Your task to perform on an android device: turn on javascript in the chrome app Image 0: 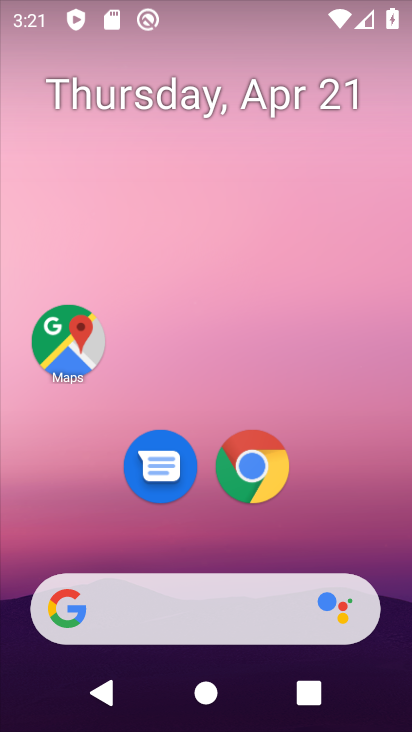
Step 0: click (261, 464)
Your task to perform on an android device: turn on javascript in the chrome app Image 1: 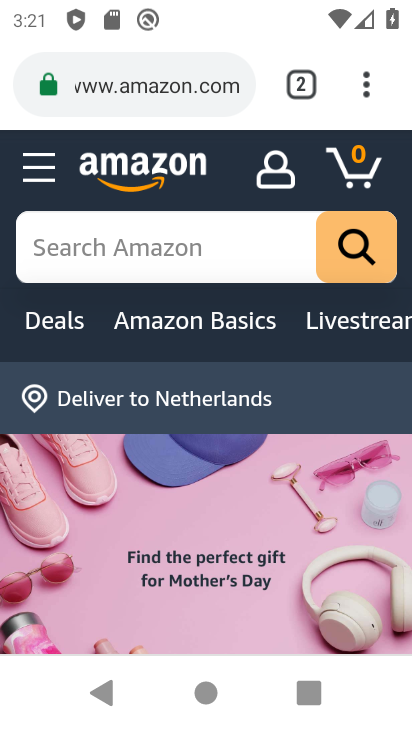
Step 1: drag from (361, 87) to (194, 518)
Your task to perform on an android device: turn on javascript in the chrome app Image 2: 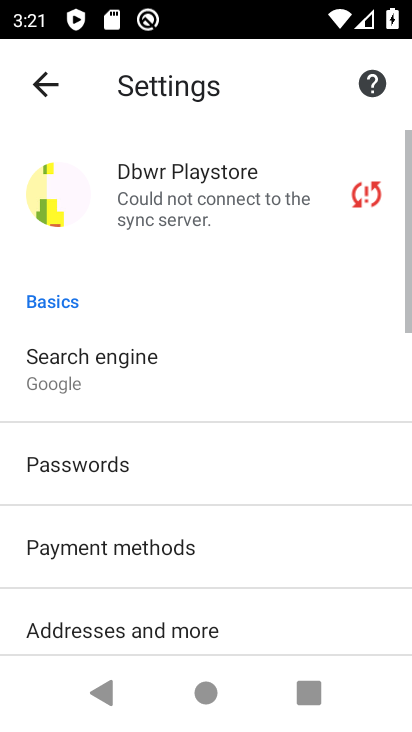
Step 2: drag from (224, 578) to (224, 234)
Your task to perform on an android device: turn on javascript in the chrome app Image 3: 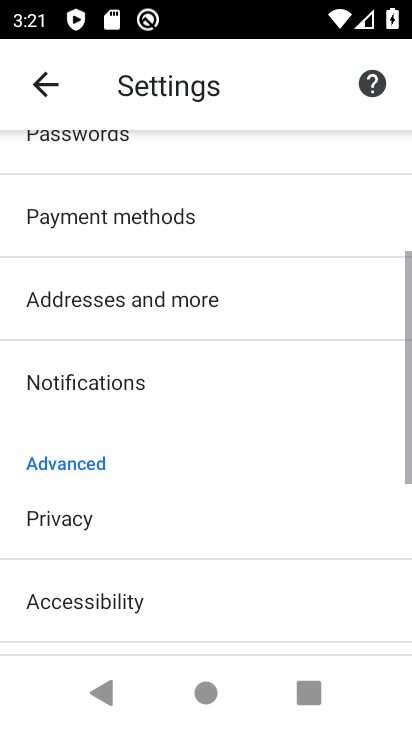
Step 3: drag from (224, 563) to (224, 298)
Your task to perform on an android device: turn on javascript in the chrome app Image 4: 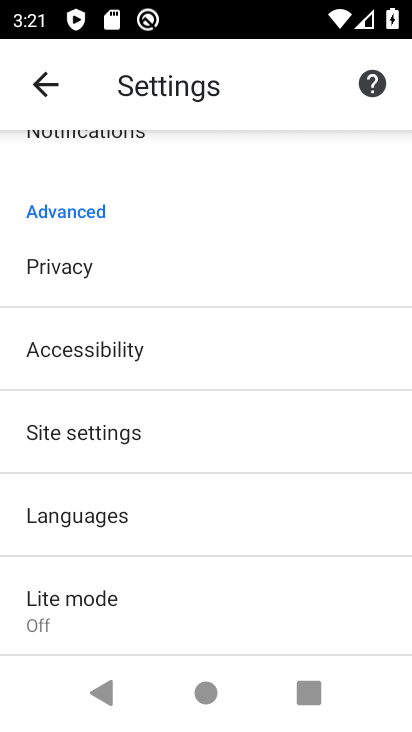
Step 4: drag from (203, 600) to (244, 337)
Your task to perform on an android device: turn on javascript in the chrome app Image 5: 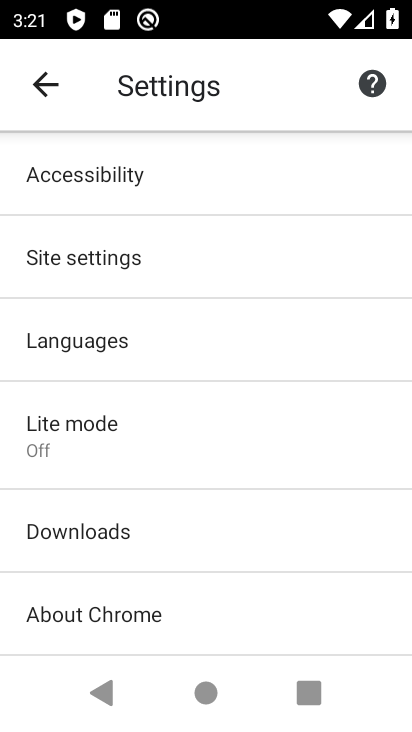
Step 5: click (153, 249)
Your task to perform on an android device: turn on javascript in the chrome app Image 6: 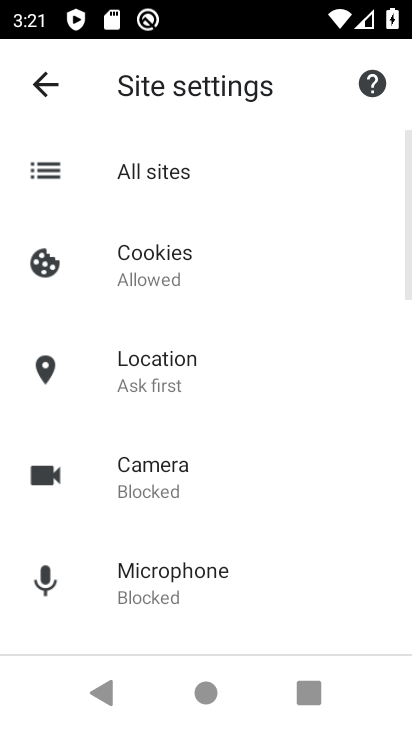
Step 6: drag from (218, 564) to (239, 272)
Your task to perform on an android device: turn on javascript in the chrome app Image 7: 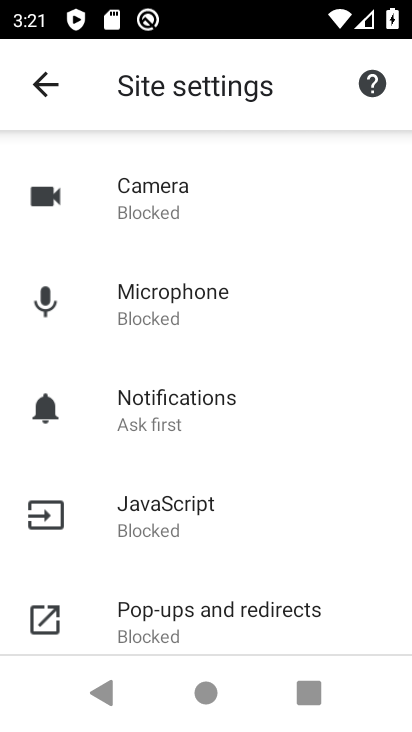
Step 7: click (212, 510)
Your task to perform on an android device: turn on javascript in the chrome app Image 8: 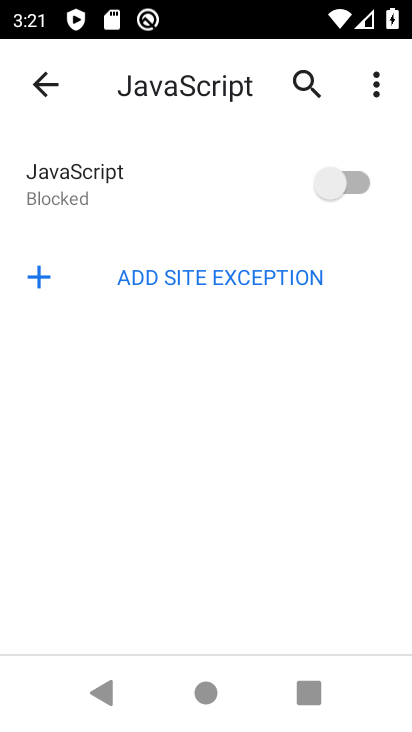
Step 8: click (354, 183)
Your task to perform on an android device: turn on javascript in the chrome app Image 9: 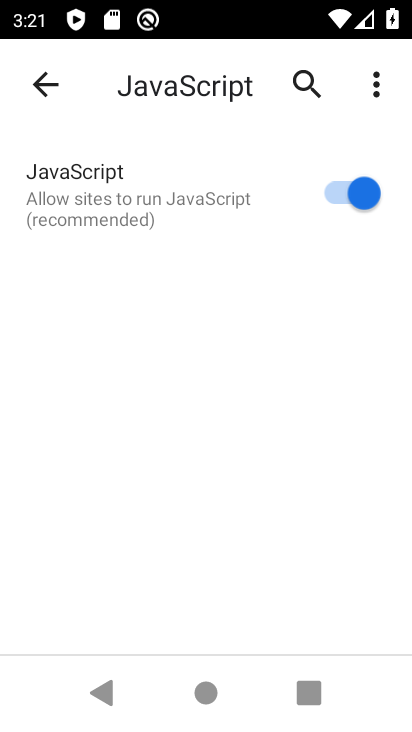
Step 9: task complete